Your task to perform on an android device: check data usage Image 0: 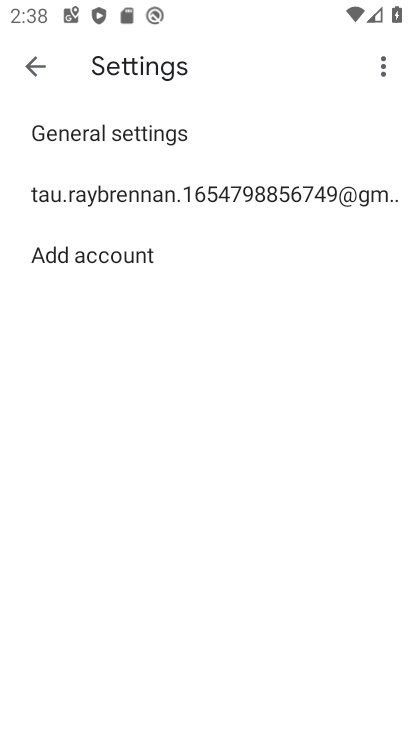
Step 0: press home button
Your task to perform on an android device: check data usage Image 1: 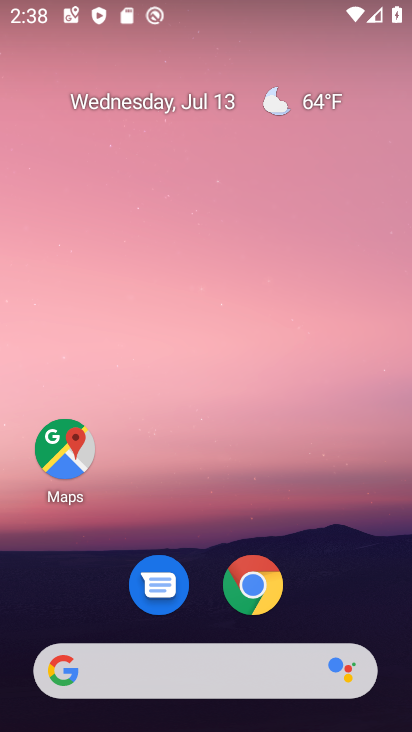
Step 1: drag from (209, 689) to (271, 167)
Your task to perform on an android device: check data usage Image 2: 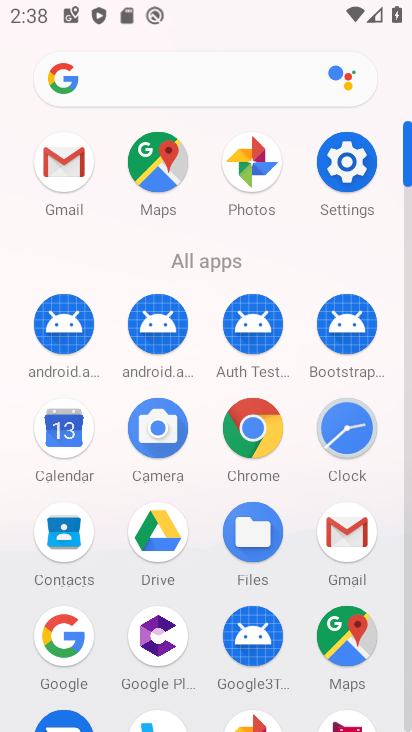
Step 2: click (347, 166)
Your task to perform on an android device: check data usage Image 3: 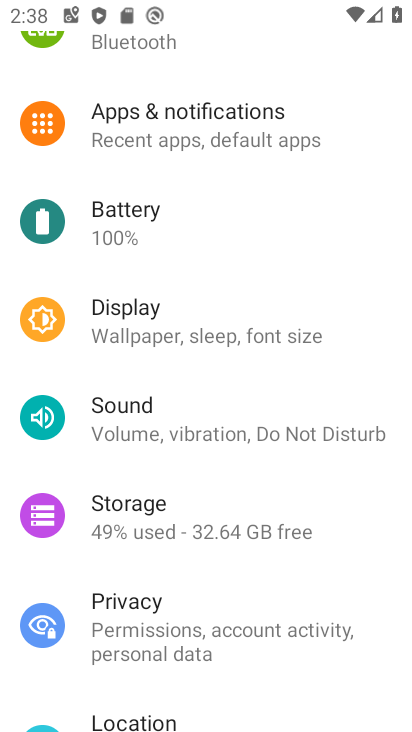
Step 3: drag from (345, 89) to (240, 600)
Your task to perform on an android device: check data usage Image 4: 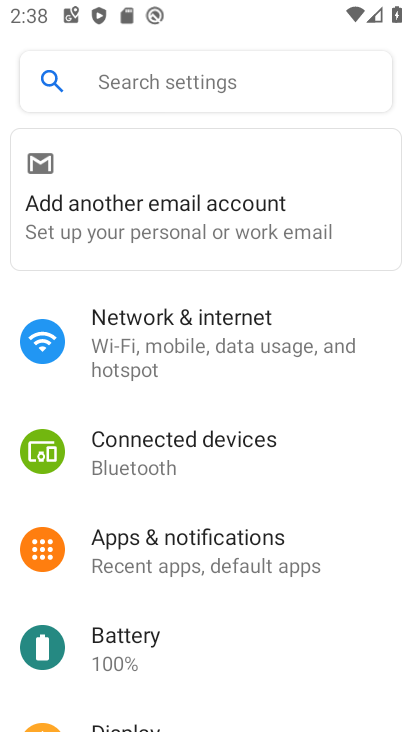
Step 4: click (215, 313)
Your task to perform on an android device: check data usage Image 5: 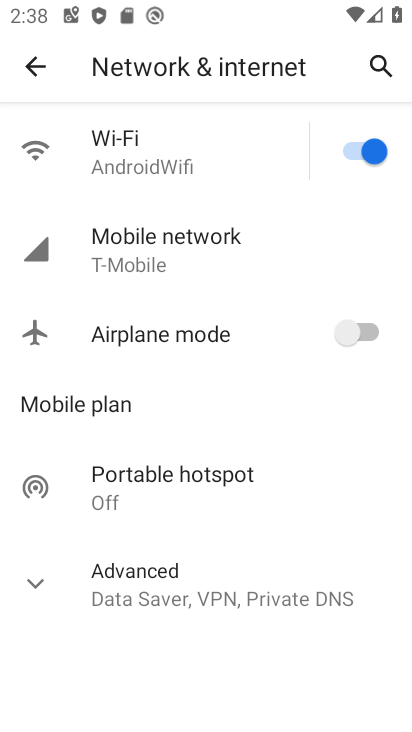
Step 5: click (170, 137)
Your task to perform on an android device: check data usage Image 6: 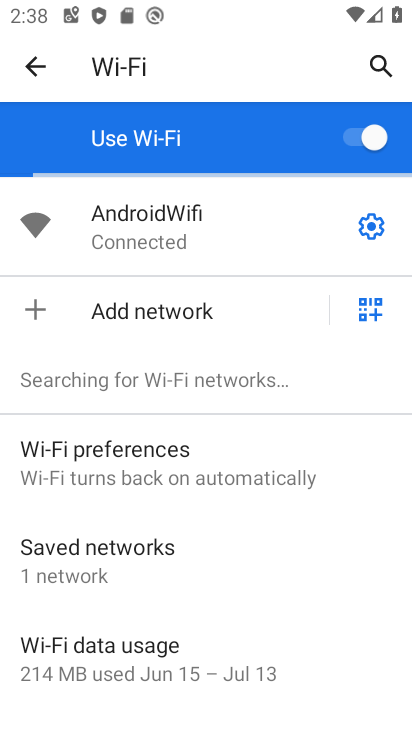
Step 6: drag from (171, 606) to (263, 251)
Your task to perform on an android device: check data usage Image 7: 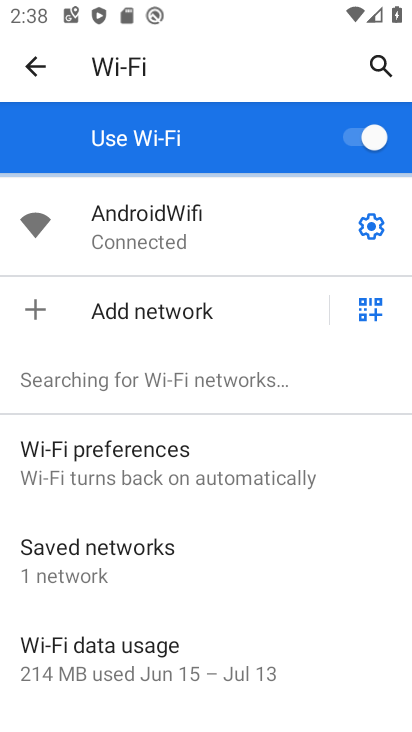
Step 7: click (139, 648)
Your task to perform on an android device: check data usage Image 8: 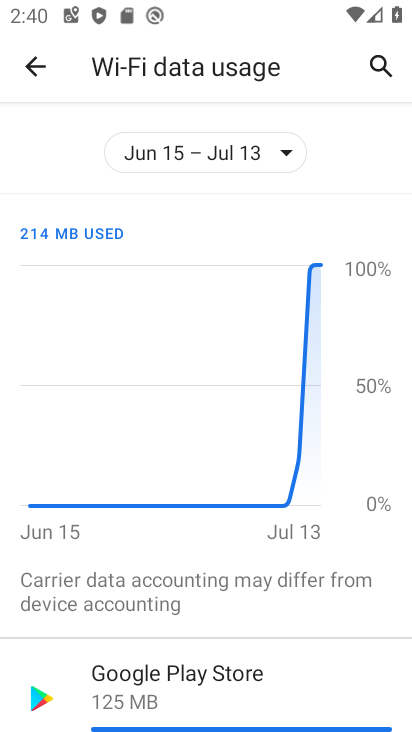
Step 8: task complete